Your task to perform on an android device: Search for vegetarian restaurants on Maps Image 0: 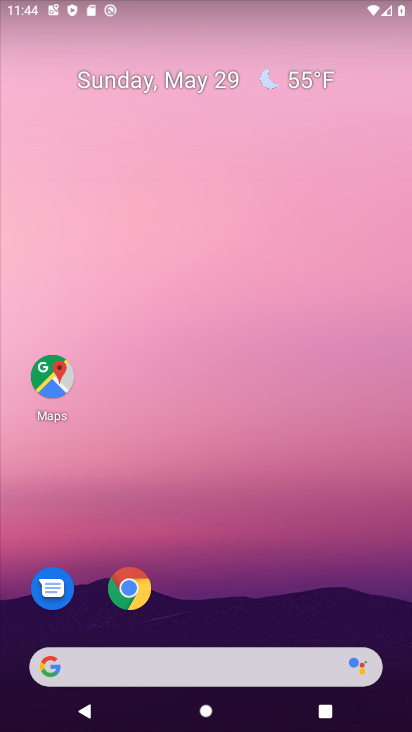
Step 0: drag from (389, 126) to (401, 13)
Your task to perform on an android device: Search for vegetarian restaurants on Maps Image 1: 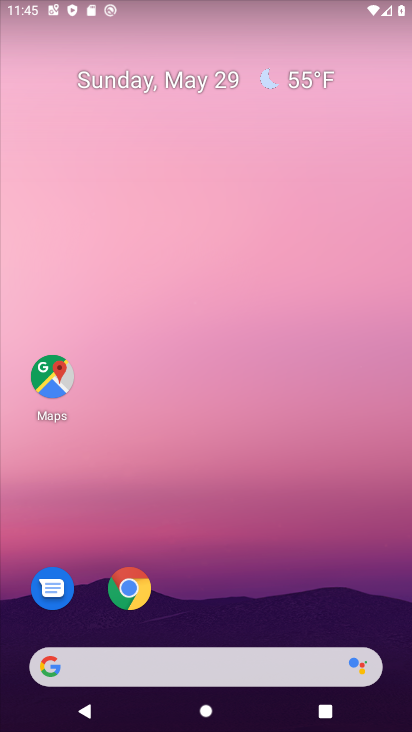
Step 1: drag from (271, 539) to (322, 0)
Your task to perform on an android device: Search for vegetarian restaurants on Maps Image 2: 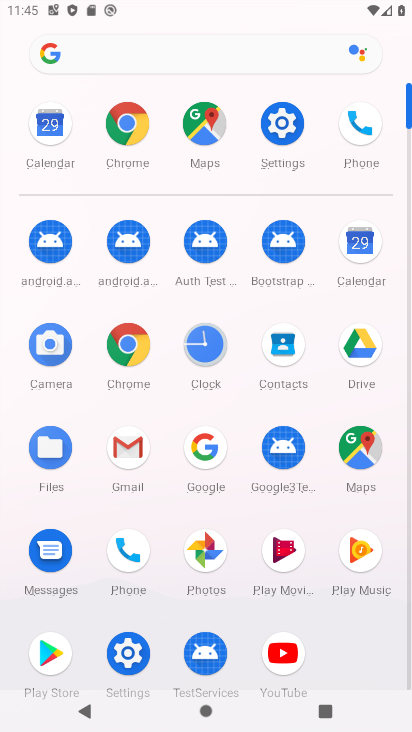
Step 2: click (199, 128)
Your task to perform on an android device: Search for vegetarian restaurants on Maps Image 3: 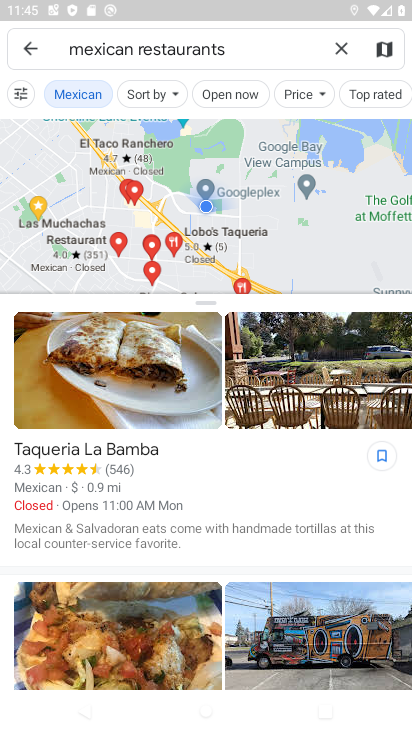
Step 3: click (343, 48)
Your task to perform on an android device: Search for vegetarian restaurants on Maps Image 4: 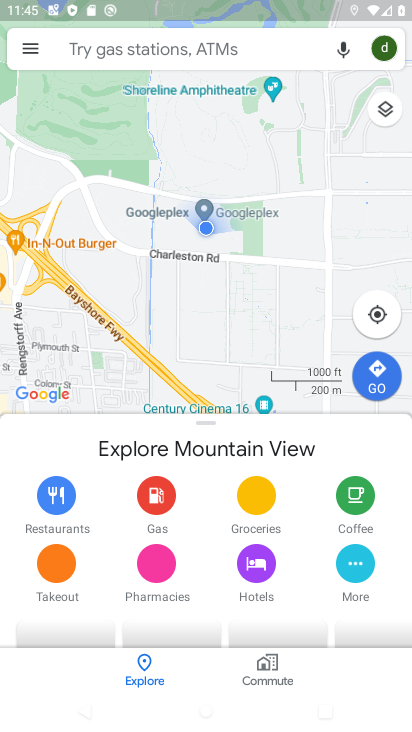
Step 4: click (287, 44)
Your task to perform on an android device: Search for vegetarian restaurants on Maps Image 5: 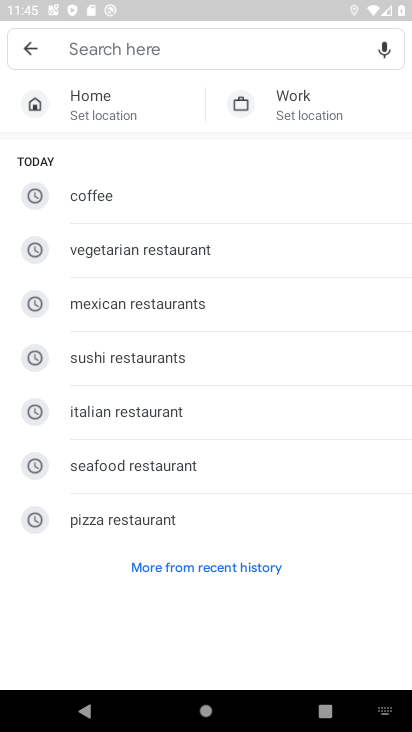
Step 5: click (117, 243)
Your task to perform on an android device: Search for vegetarian restaurants on Maps Image 6: 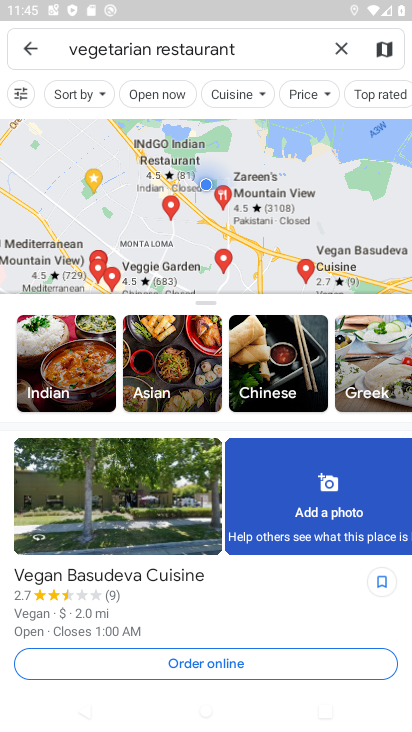
Step 6: task complete